Your task to perform on an android device: change timer sound Image 0: 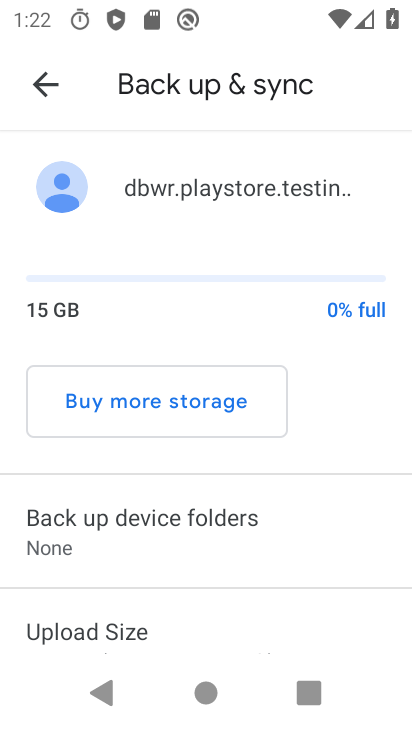
Step 0: press home button
Your task to perform on an android device: change timer sound Image 1: 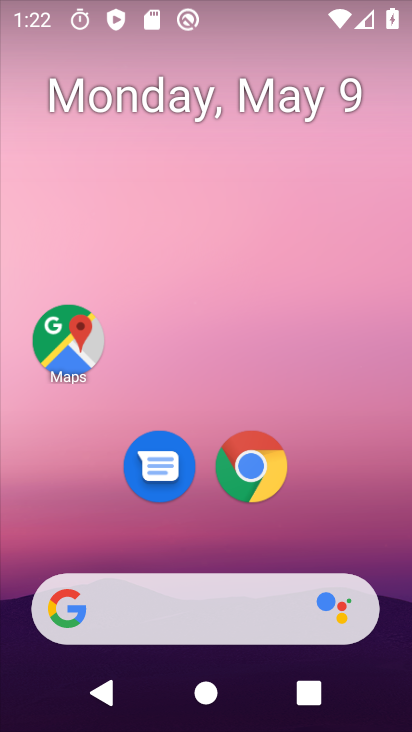
Step 1: drag from (244, 582) to (292, 381)
Your task to perform on an android device: change timer sound Image 2: 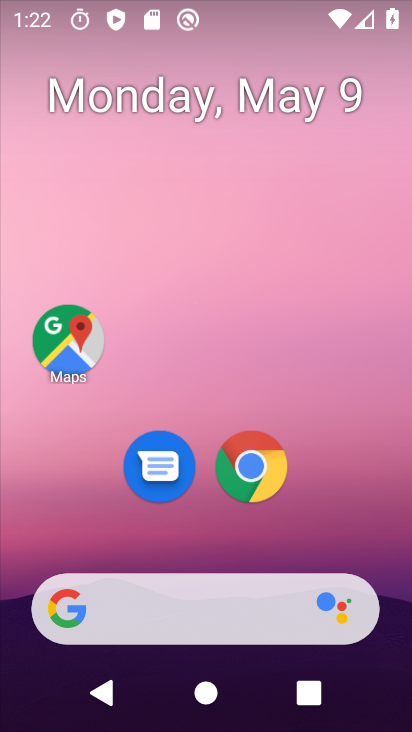
Step 2: drag from (285, 638) to (298, 451)
Your task to perform on an android device: change timer sound Image 3: 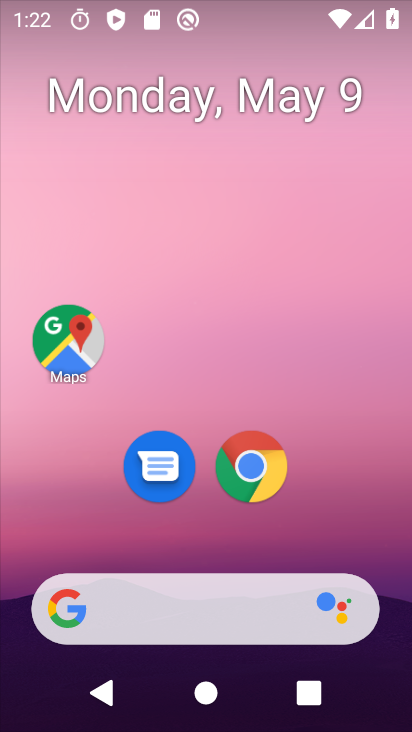
Step 3: drag from (284, 574) to (323, 173)
Your task to perform on an android device: change timer sound Image 4: 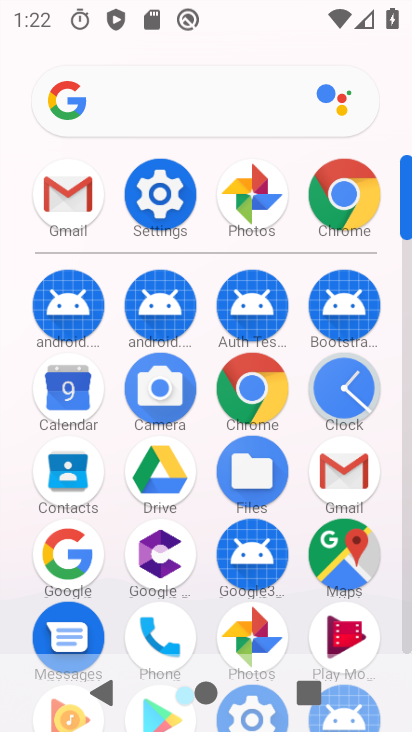
Step 4: click (333, 374)
Your task to perform on an android device: change timer sound Image 5: 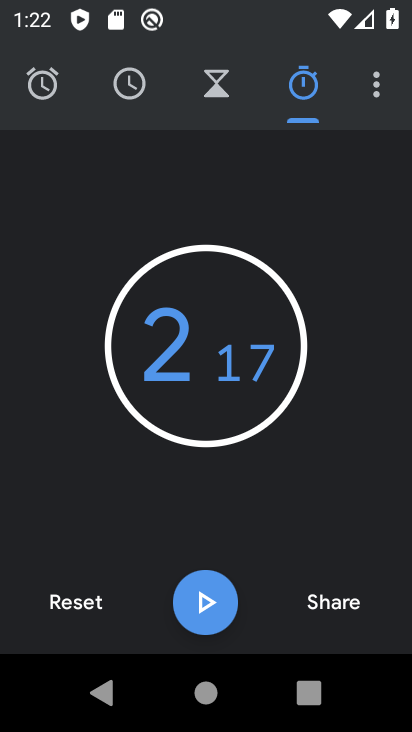
Step 5: click (377, 79)
Your task to perform on an android device: change timer sound Image 6: 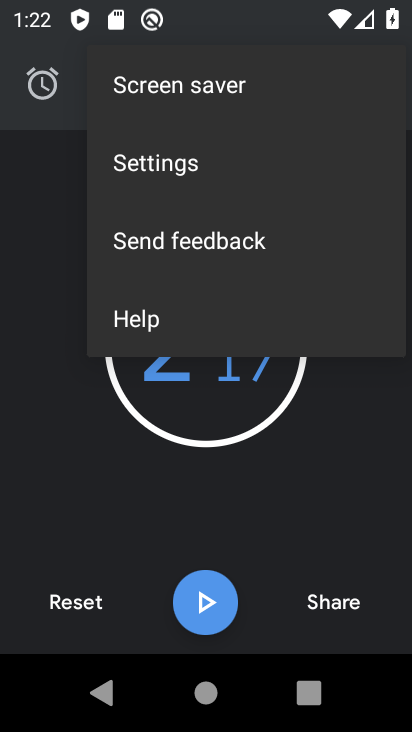
Step 6: click (204, 174)
Your task to perform on an android device: change timer sound Image 7: 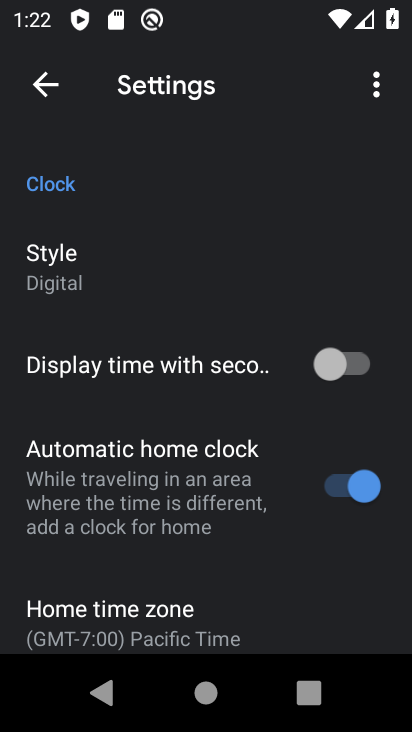
Step 7: drag from (154, 456) to (190, 289)
Your task to perform on an android device: change timer sound Image 8: 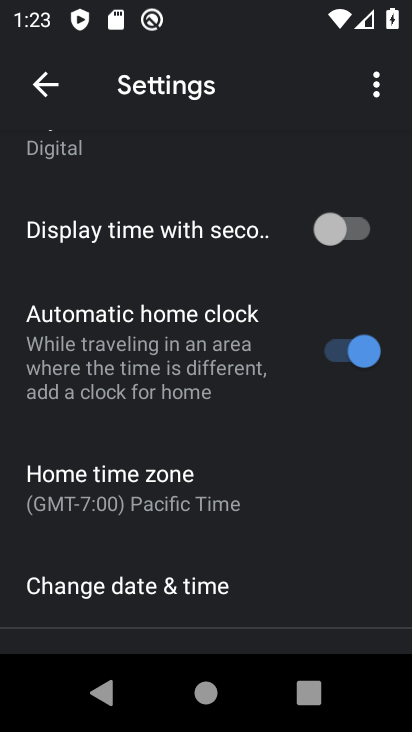
Step 8: drag from (131, 527) to (174, 294)
Your task to perform on an android device: change timer sound Image 9: 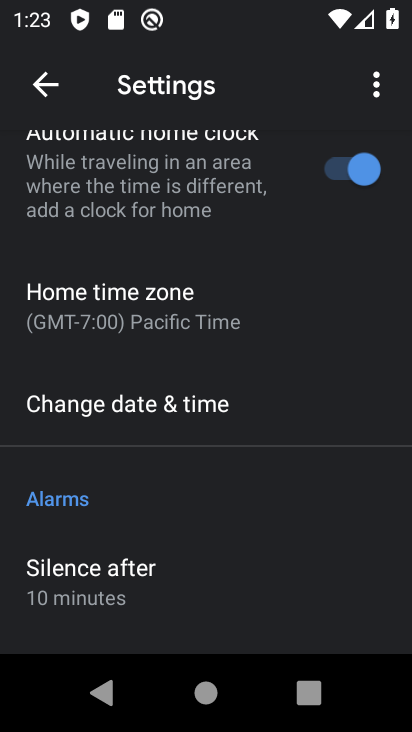
Step 9: drag from (153, 455) to (174, 290)
Your task to perform on an android device: change timer sound Image 10: 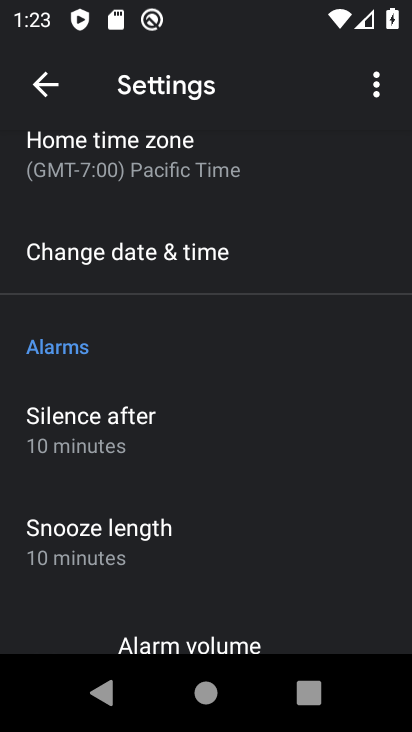
Step 10: drag from (161, 412) to (170, 316)
Your task to perform on an android device: change timer sound Image 11: 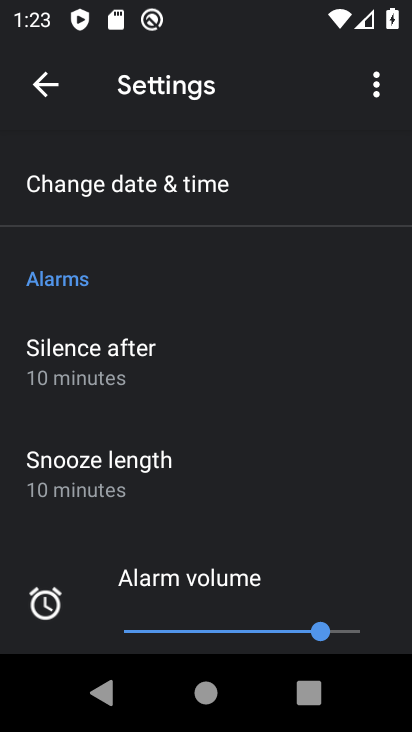
Step 11: drag from (144, 433) to (187, 240)
Your task to perform on an android device: change timer sound Image 12: 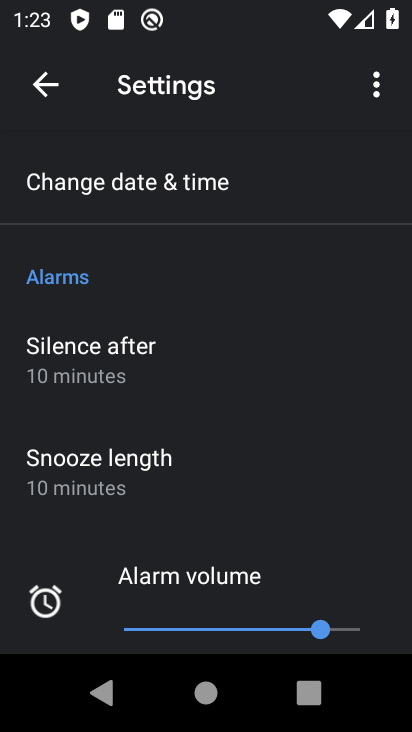
Step 12: drag from (200, 361) to (219, 92)
Your task to perform on an android device: change timer sound Image 13: 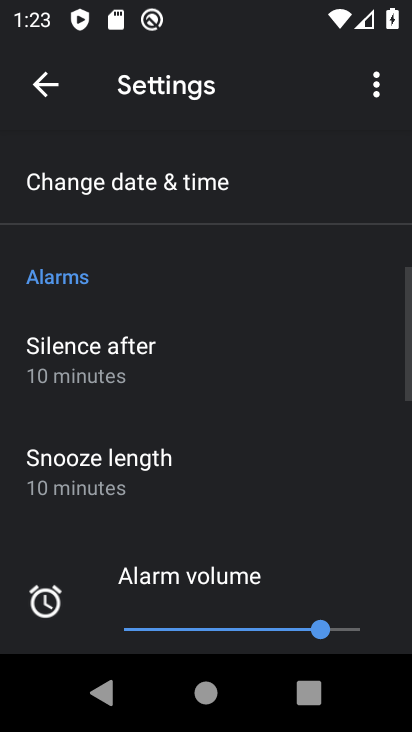
Step 13: drag from (212, 385) to (260, 13)
Your task to perform on an android device: change timer sound Image 14: 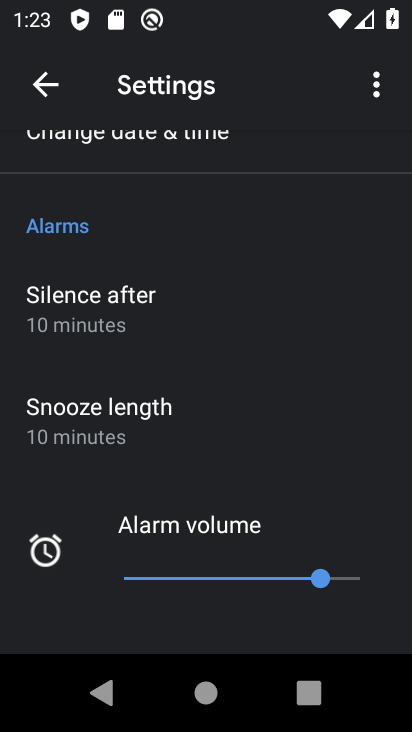
Step 14: drag from (155, 484) to (177, 13)
Your task to perform on an android device: change timer sound Image 15: 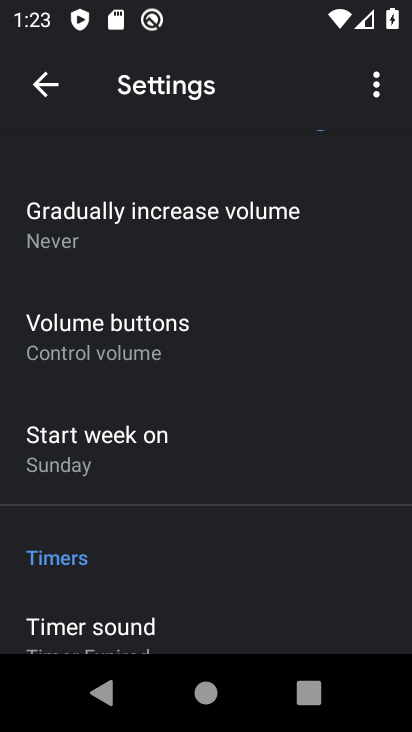
Step 15: drag from (146, 331) to (180, 1)
Your task to perform on an android device: change timer sound Image 16: 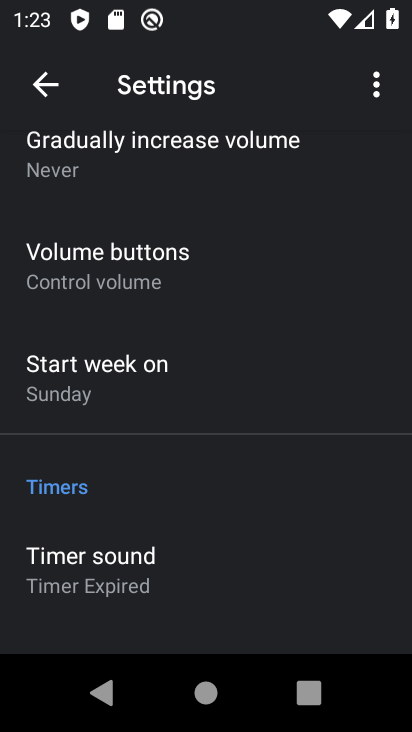
Step 16: click (142, 591)
Your task to perform on an android device: change timer sound Image 17: 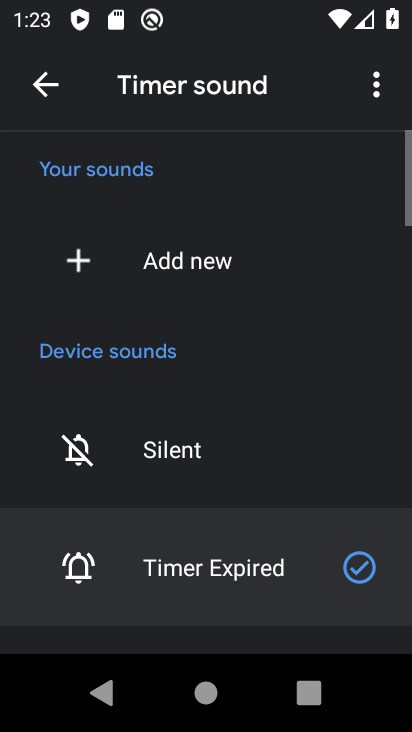
Step 17: click (165, 460)
Your task to perform on an android device: change timer sound Image 18: 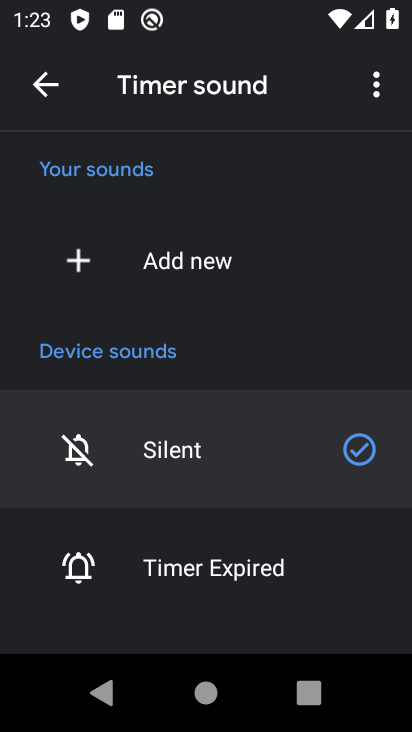
Step 18: task complete